Your task to perform on an android device: Go to accessibility settings Image 0: 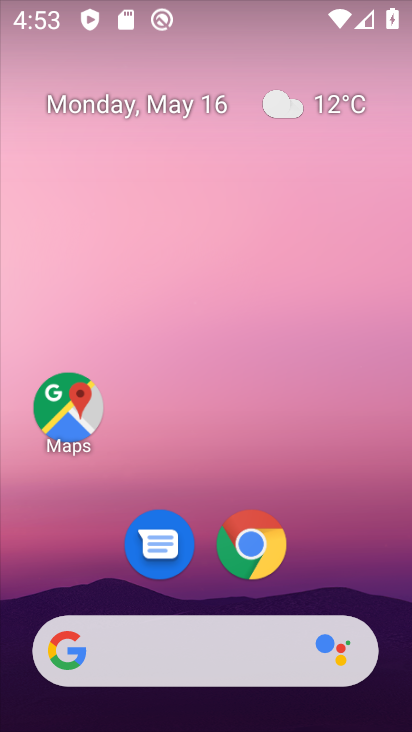
Step 0: drag from (335, 533) to (218, 103)
Your task to perform on an android device: Go to accessibility settings Image 1: 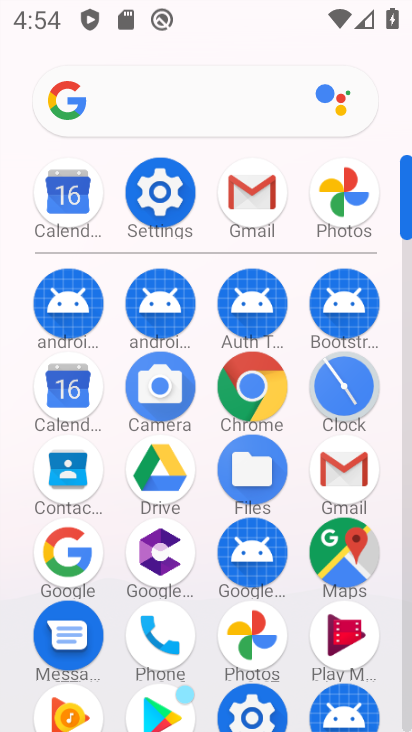
Step 1: click (158, 191)
Your task to perform on an android device: Go to accessibility settings Image 2: 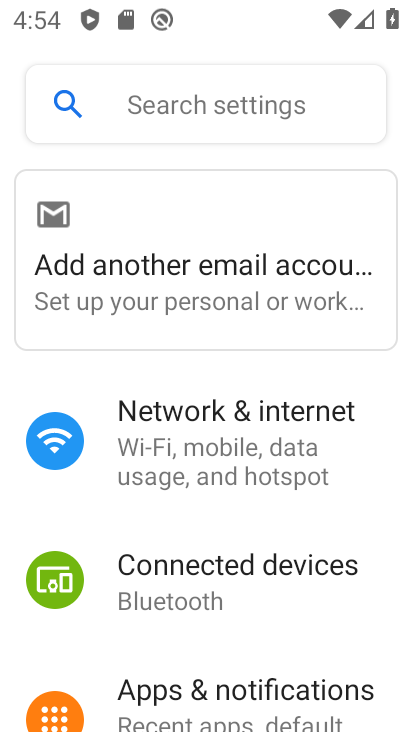
Step 2: drag from (153, 526) to (207, 441)
Your task to perform on an android device: Go to accessibility settings Image 3: 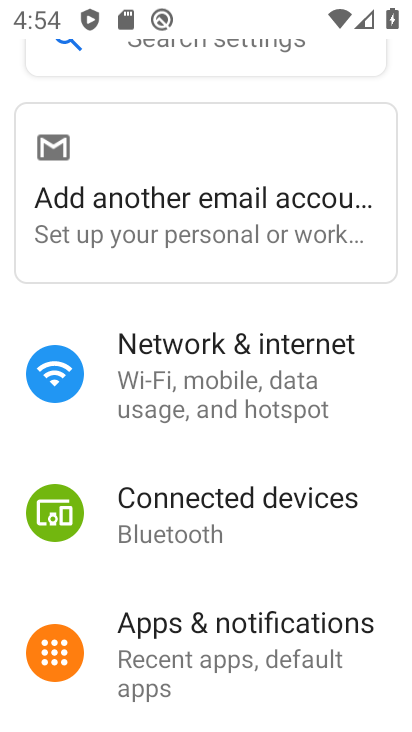
Step 3: drag from (165, 580) to (254, 469)
Your task to perform on an android device: Go to accessibility settings Image 4: 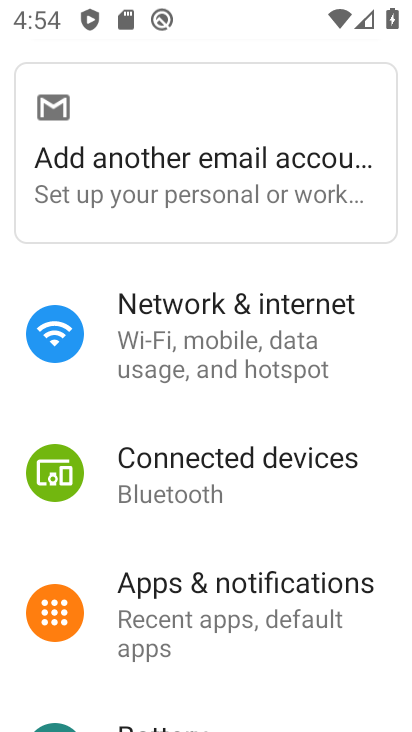
Step 4: drag from (172, 685) to (271, 520)
Your task to perform on an android device: Go to accessibility settings Image 5: 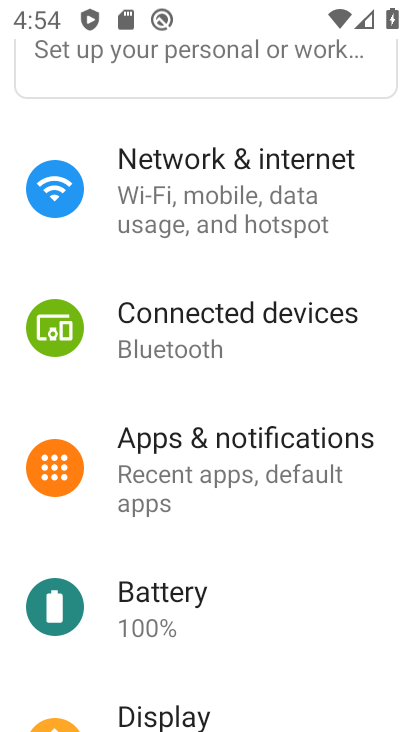
Step 5: drag from (160, 544) to (226, 432)
Your task to perform on an android device: Go to accessibility settings Image 6: 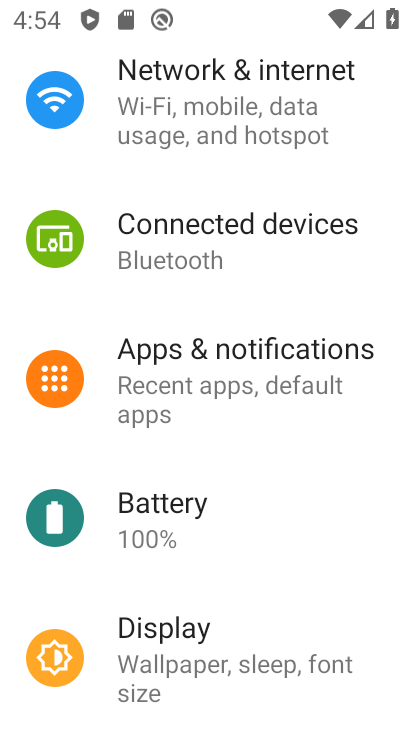
Step 6: drag from (130, 581) to (175, 467)
Your task to perform on an android device: Go to accessibility settings Image 7: 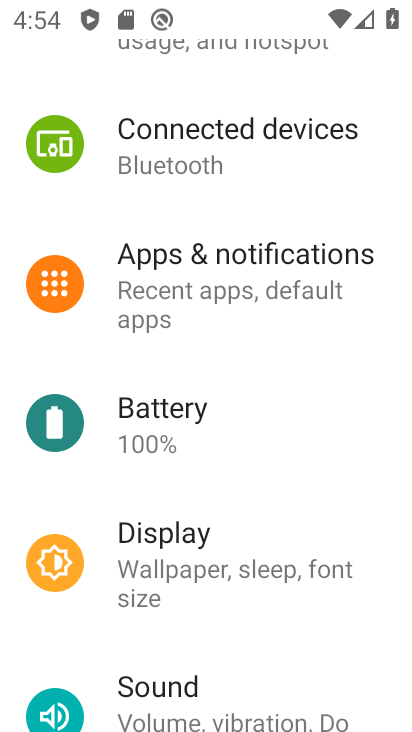
Step 7: drag from (130, 644) to (202, 478)
Your task to perform on an android device: Go to accessibility settings Image 8: 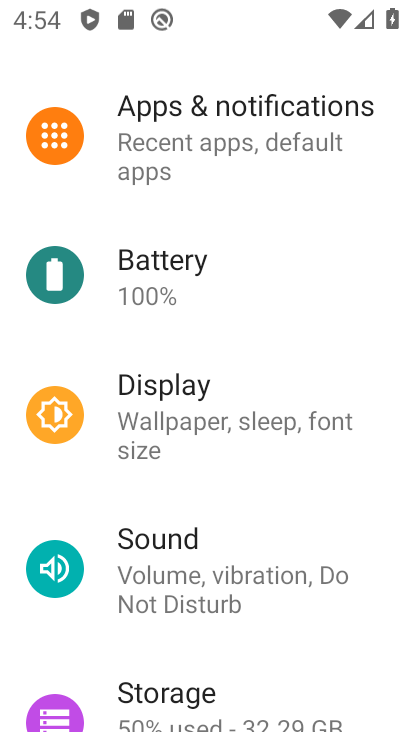
Step 8: drag from (144, 496) to (190, 361)
Your task to perform on an android device: Go to accessibility settings Image 9: 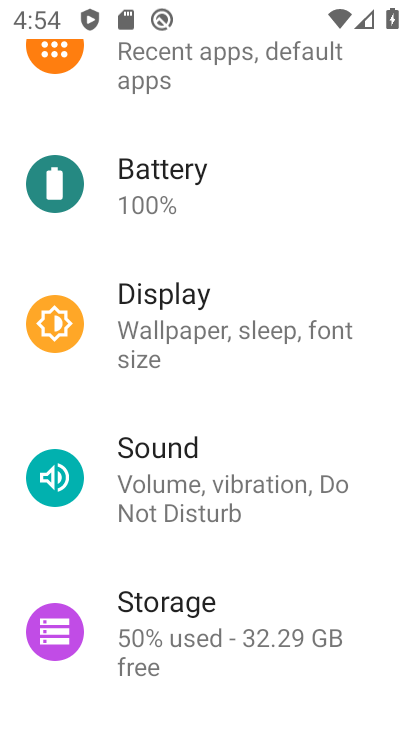
Step 9: drag from (145, 552) to (192, 403)
Your task to perform on an android device: Go to accessibility settings Image 10: 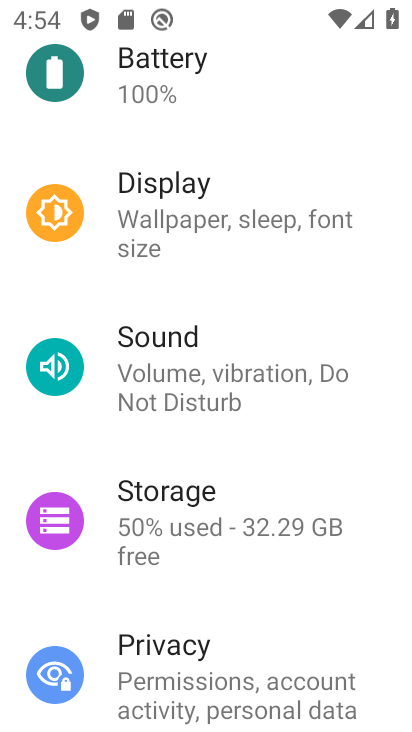
Step 10: drag from (133, 615) to (215, 469)
Your task to perform on an android device: Go to accessibility settings Image 11: 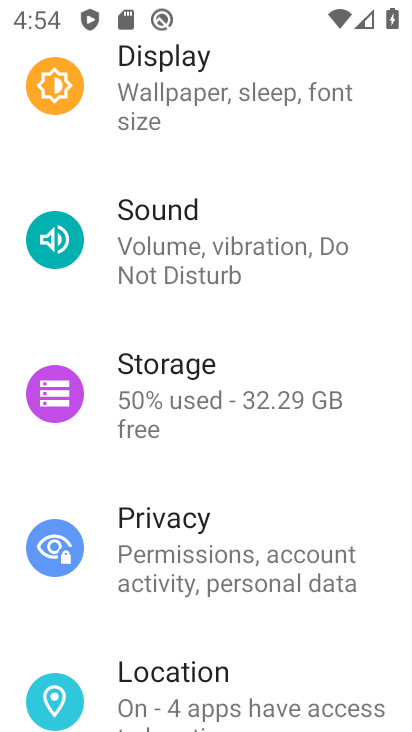
Step 11: drag from (141, 475) to (203, 364)
Your task to perform on an android device: Go to accessibility settings Image 12: 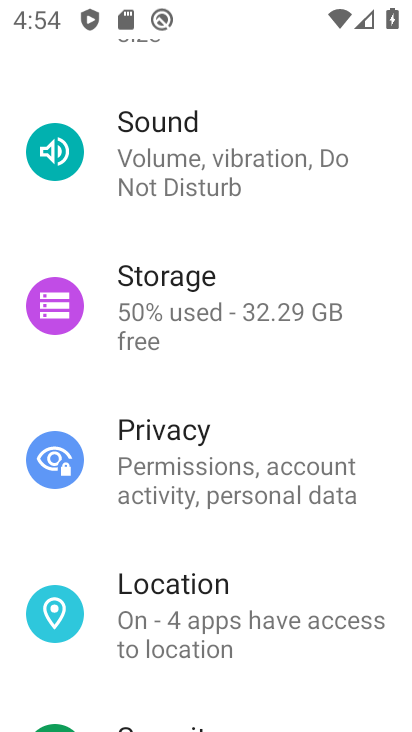
Step 12: drag from (130, 547) to (223, 401)
Your task to perform on an android device: Go to accessibility settings Image 13: 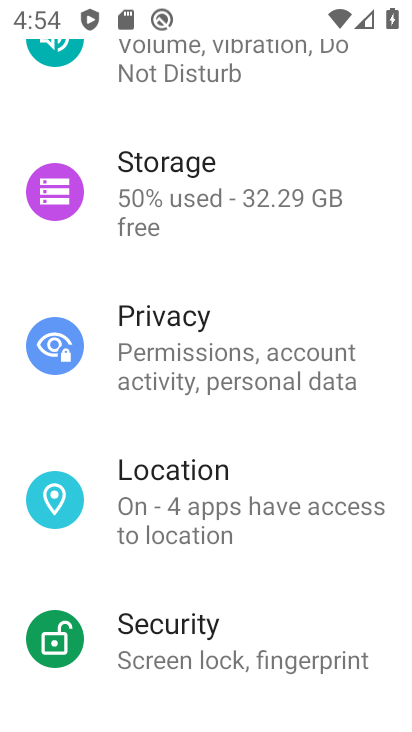
Step 13: drag from (139, 571) to (244, 419)
Your task to perform on an android device: Go to accessibility settings Image 14: 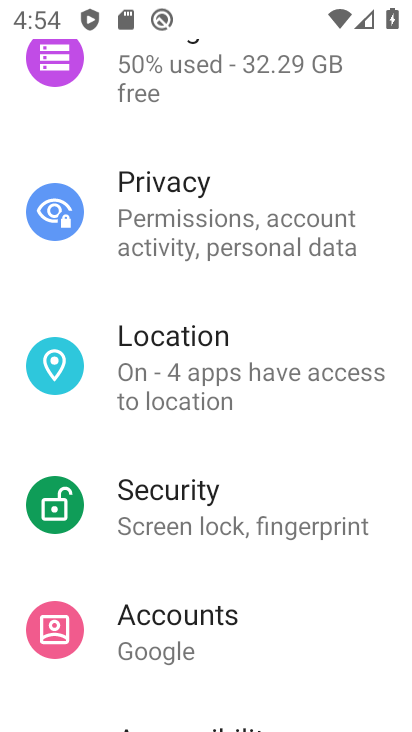
Step 14: drag from (148, 564) to (222, 445)
Your task to perform on an android device: Go to accessibility settings Image 15: 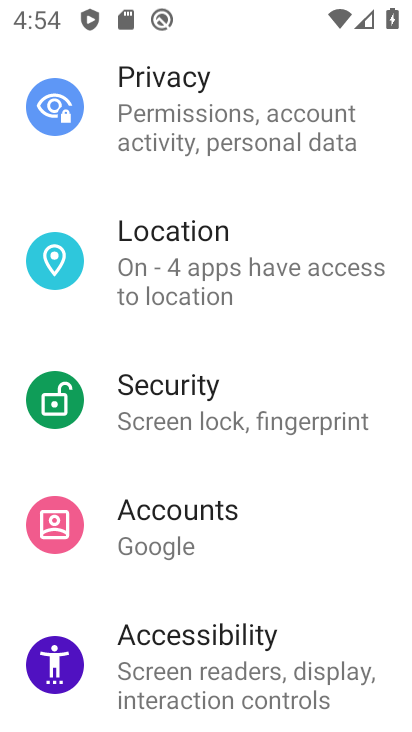
Step 15: drag from (146, 484) to (214, 359)
Your task to perform on an android device: Go to accessibility settings Image 16: 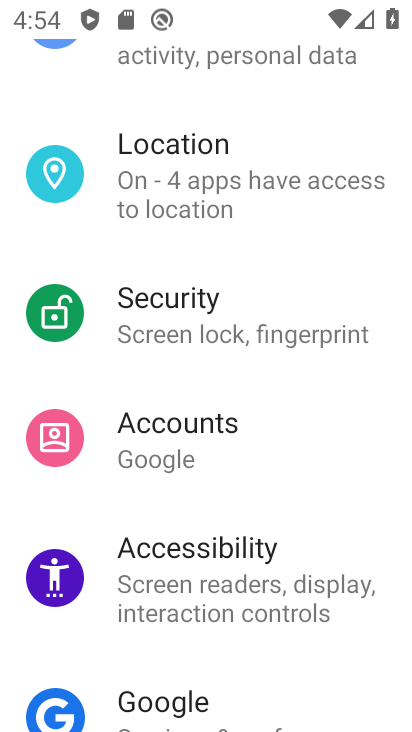
Step 16: click (164, 539)
Your task to perform on an android device: Go to accessibility settings Image 17: 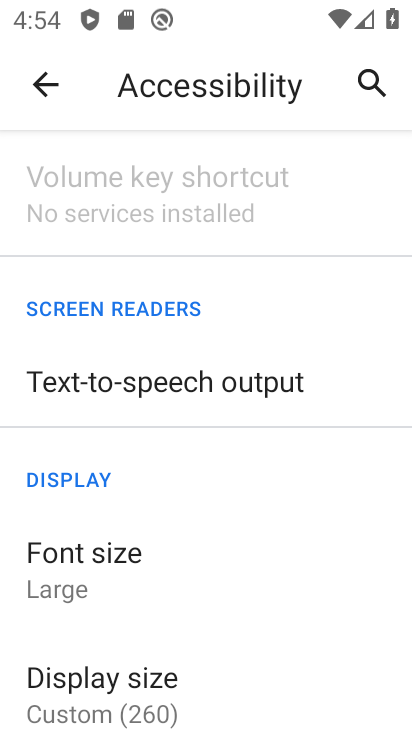
Step 17: task complete